Your task to perform on an android device: Do I have any events tomorrow? Image 0: 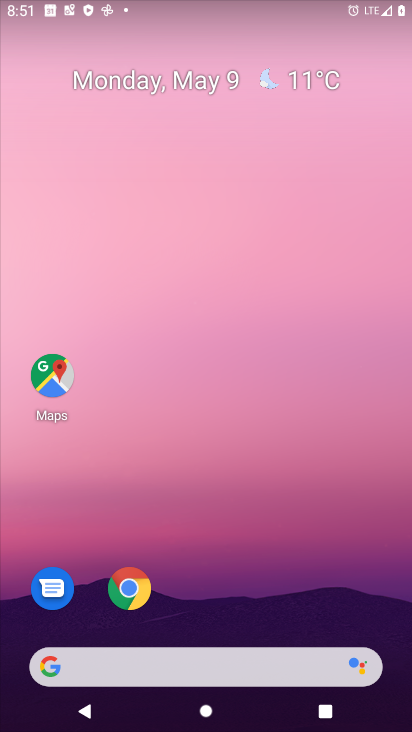
Step 0: drag from (335, 602) to (280, 77)
Your task to perform on an android device: Do I have any events tomorrow? Image 1: 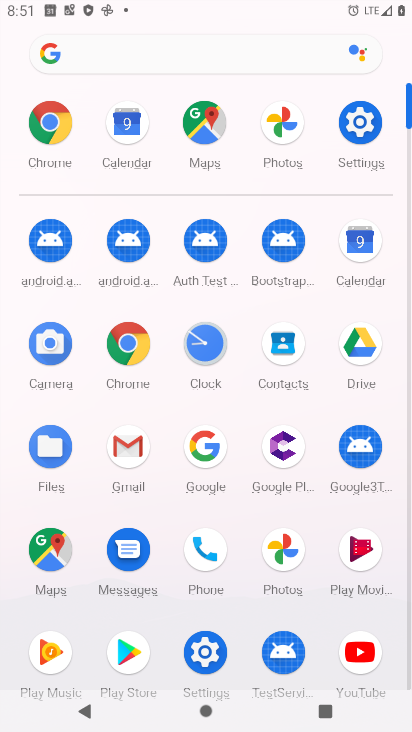
Step 1: click (368, 255)
Your task to perform on an android device: Do I have any events tomorrow? Image 2: 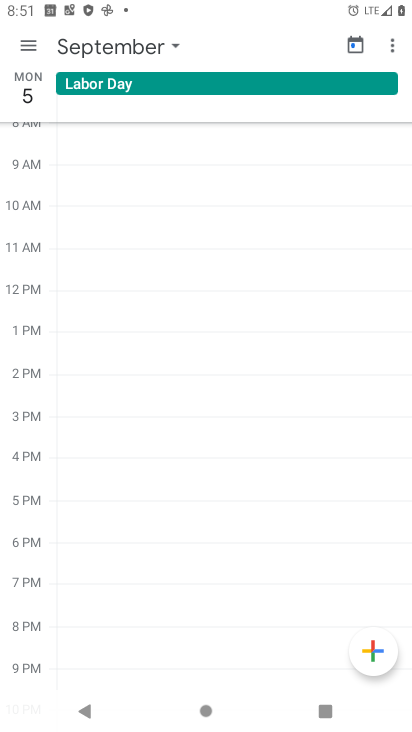
Step 2: click (31, 38)
Your task to perform on an android device: Do I have any events tomorrow? Image 3: 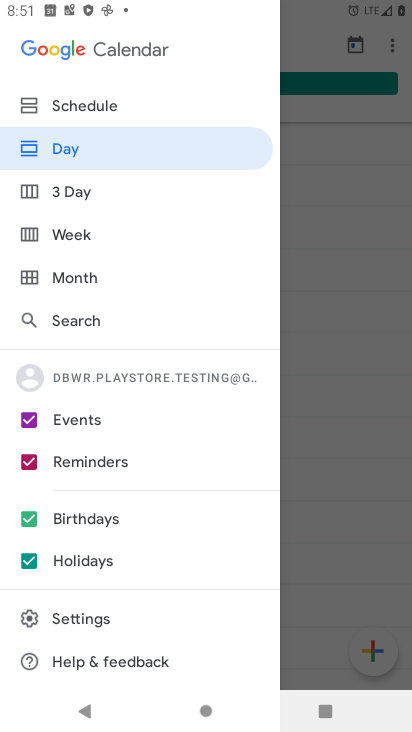
Step 3: click (112, 94)
Your task to perform on an android device: Do I have any events tomorrow? Image 4: 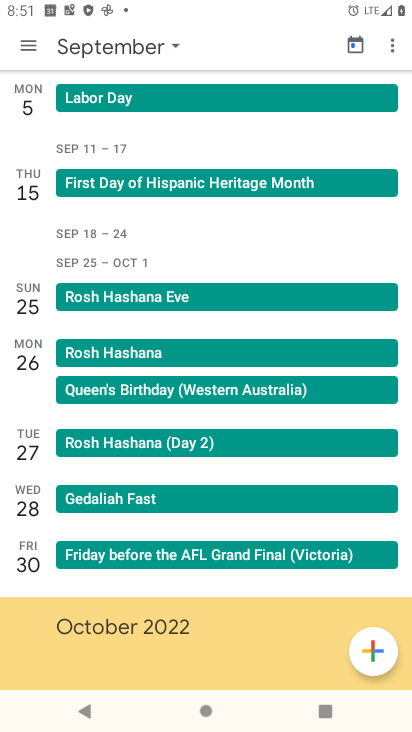
Step 4: click (94, 53)
Your task to perform on an android device: Do I have any events tomorrow? Image 5: 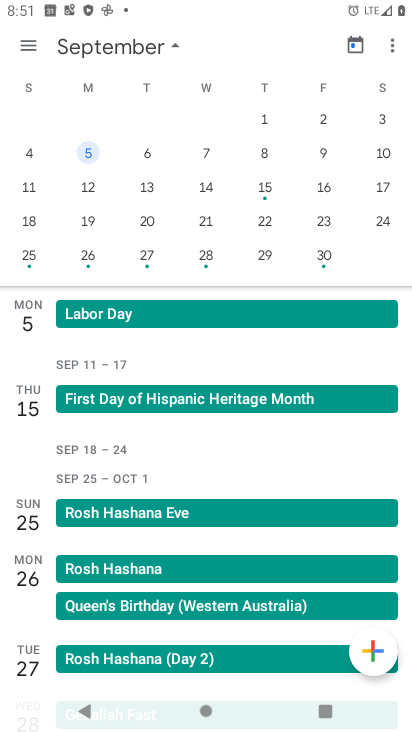
Step 5: drag from (85, 209) to (368, 160)
Your task to perform on an android device: Do I have any events tomorrow? Image 6: 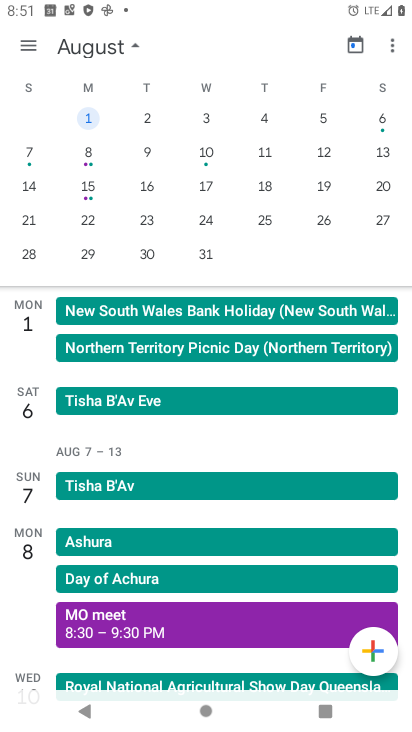
Step 6: drag from (93, 195) to (389, 162)
Your task to perform on an android device: Do I have any events tomorrow? Image 7: 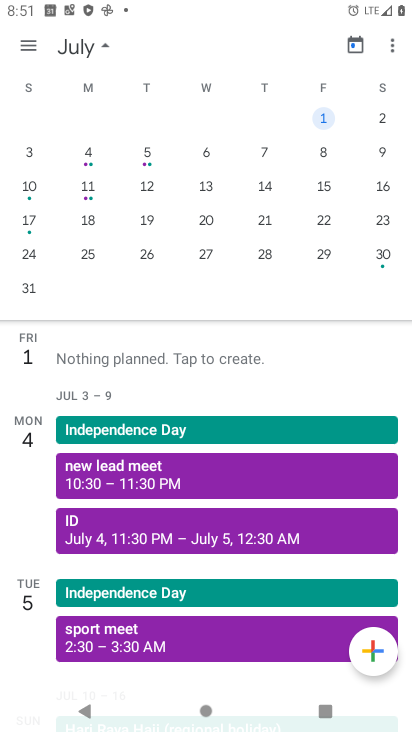
Step 7: drag from (31, 187) to (341, 203)
Your task to perform on an android device: Do I have any events tomorrow? Image 8: 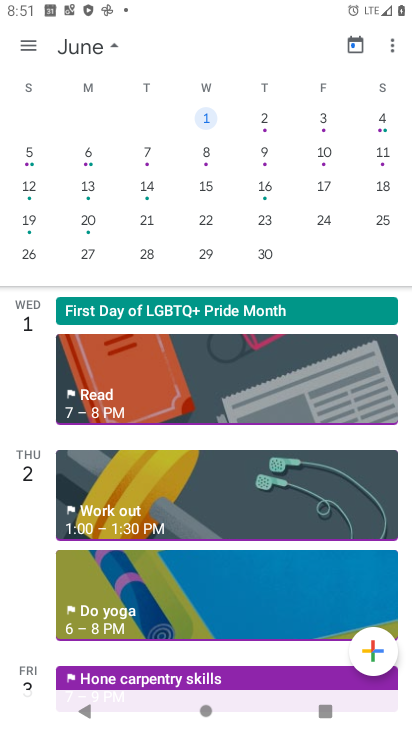
Step 8: drag from (29, 172) to (363, 122)
Your task to perform on an android device: Do I have any events tomorrow? Image 9: 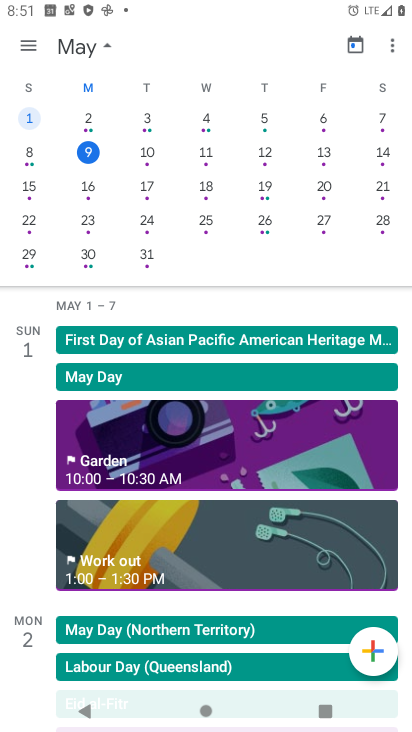
Step 9: click (203, 146)
Your task to perform on an android device: Do I have any events tomorrow? Image 10: 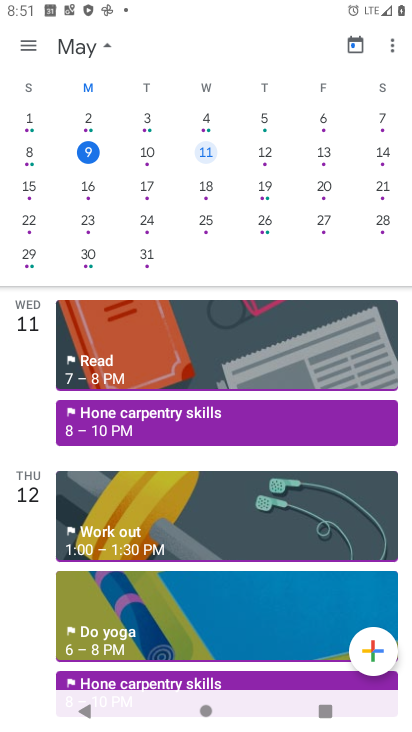
Step 10: click (163, 423)
Your task to perform on an android device: Do I have any events tomorrow? Image 11: 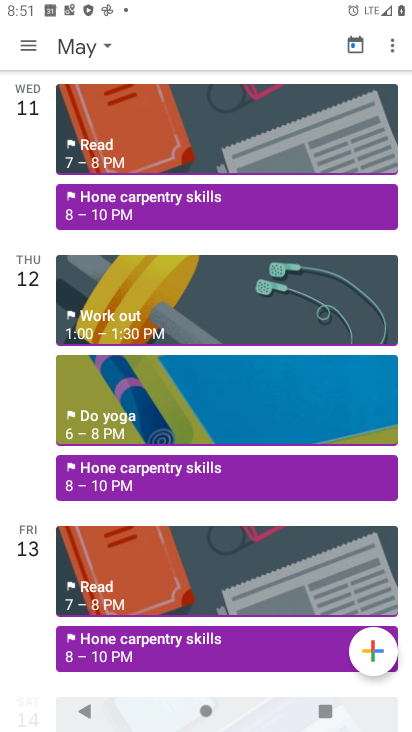
Step 11: task complete